Your task to perform on an android device: Search for seafood restaurants on Google Maps Image 0: 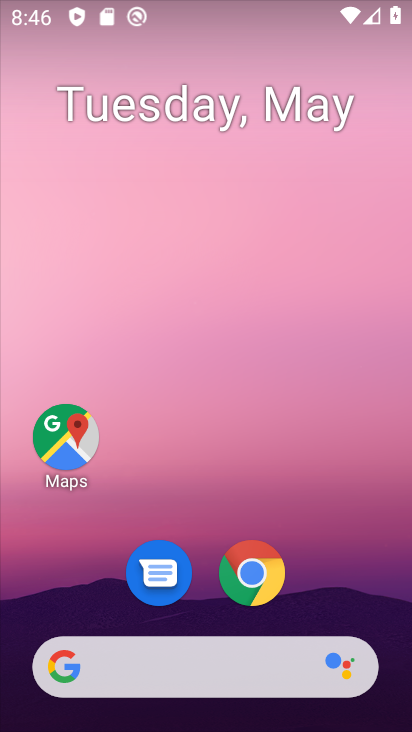
Step 0: drag from (262, 653) to (319, 84)
Your task to perform on an android device: Search for seafood restaurants on Google Maps Image 1: 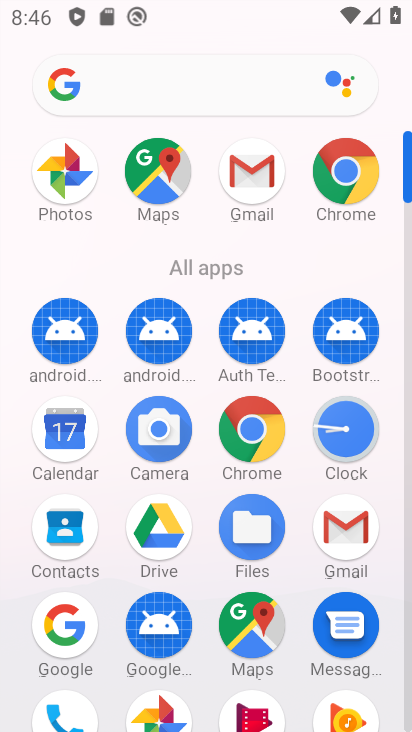
Step 1: click (239, 629)
Your task to perform on an android device: Search for seafood restaurants on Google Maps Image 2: 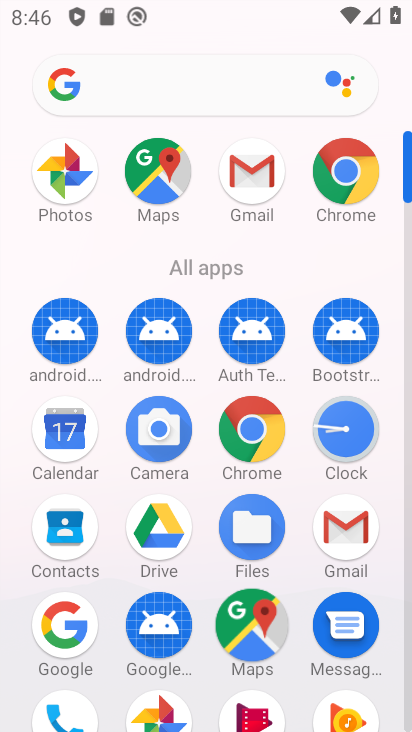
Step 2: click (239, 629)
Your task to perform on an android device: Search for seafood restaurants on Google Maps Image 3: 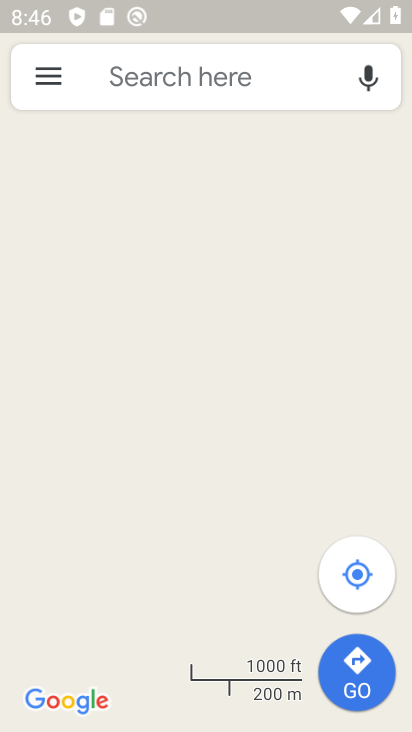
Step 3: click (122, 81)
Your task to perform on an android device: Search for seafood restaurants on Google Maps Image 4: 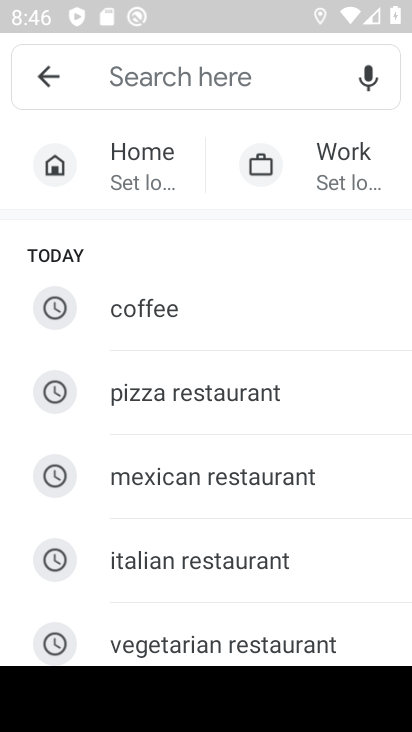
Step 4: type "seafood restaurants"
Your task to perform on an android device: Search for seafood restaurants on Google Maps Image 5: 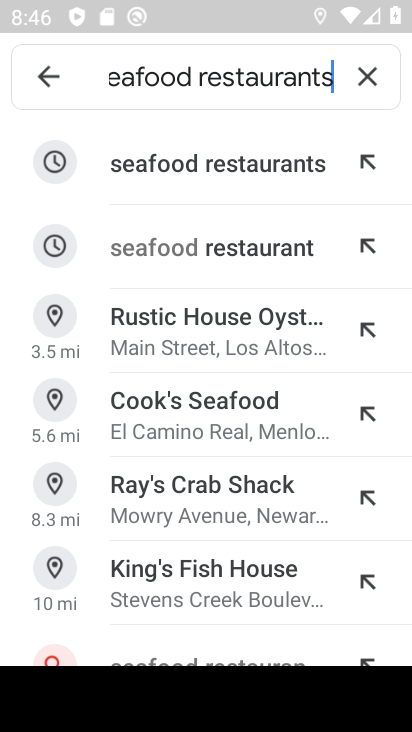
Step 5: click (250, 166)
Your task to perform on an android device: Search for seafood restaurants on Google Maps Image 6: 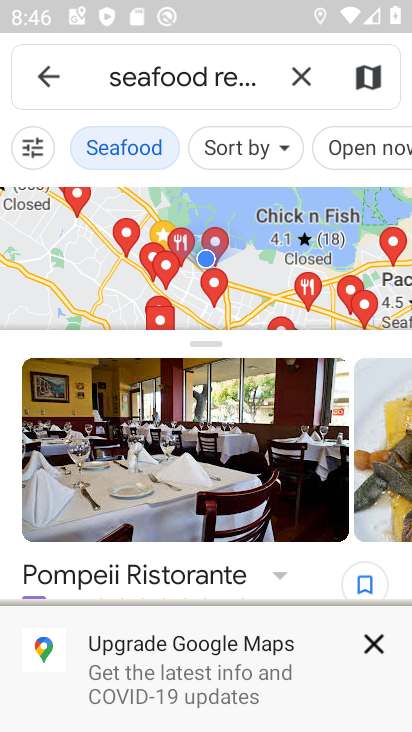
Step 6: task complete